Your task to perform on an android device: turn on notifications settings in the gmail app Image 0: 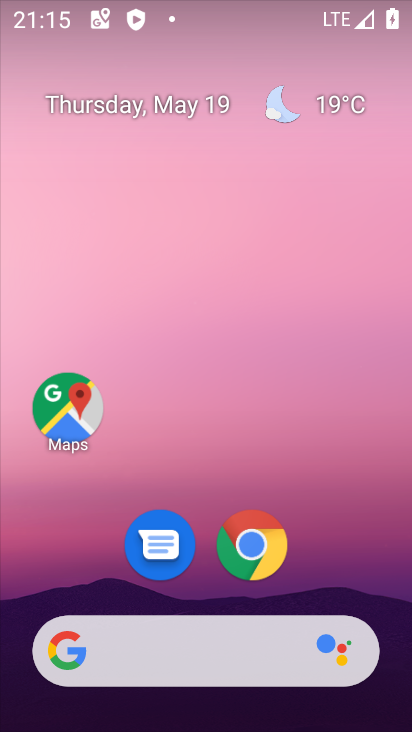
Step 0: drag from (360, 552) to (306, 88)
Your task to perform on an android device: turn on notifications settings in the gmail app Image 1: 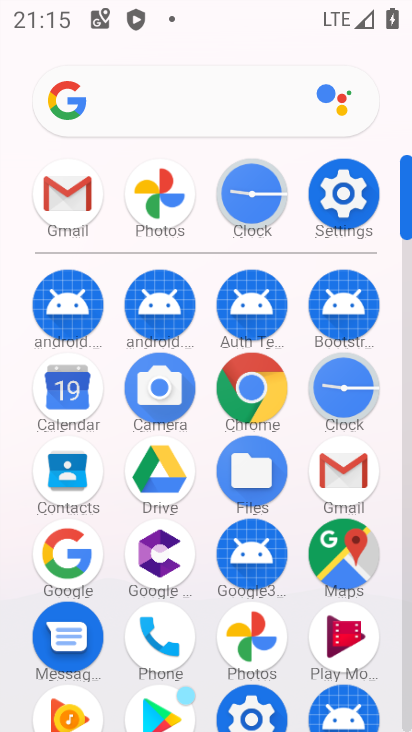
Step 1: click (76, 217)
Your task to perform on an android device: turn on notifications settings in the gmail app Image 2: 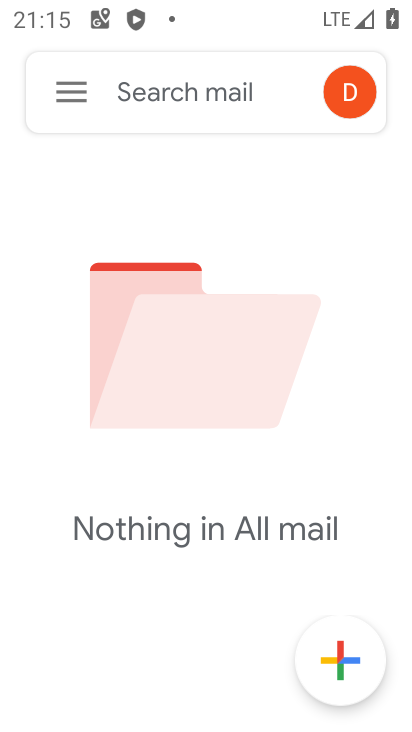
Step 2: click (98, 105)
Your task to perform on an android device: turn on notifications settings in the gmail app Image 3: 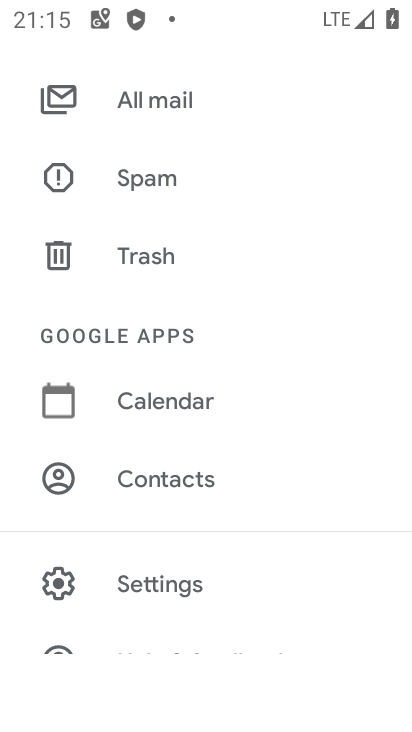
Step 3: drag from (137, 609) to (143, 406)
Your task to perform on an android device: turn on notifications settings in the gmail app Image 4: 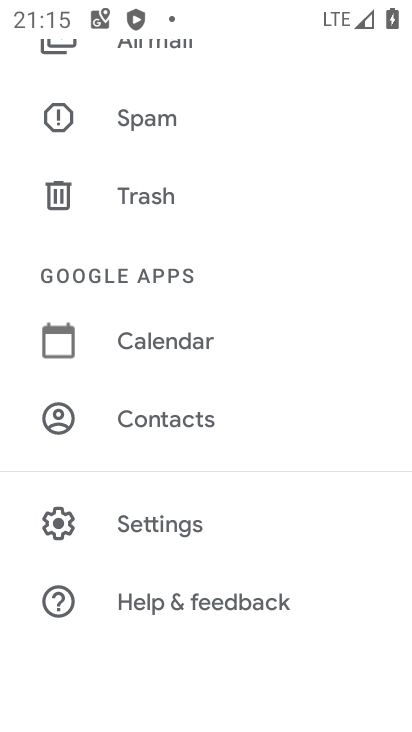
Step 4: click (146, 512)
Your task to perform on an android device: turn on notifications settings in the gmail app Image 5: 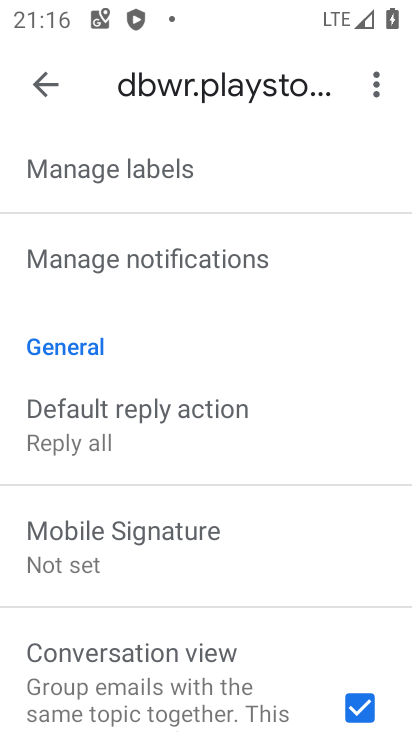
Step 5: press home button
Your task to perform on an android device: turn on notifications settings in the gmail app Image 6: 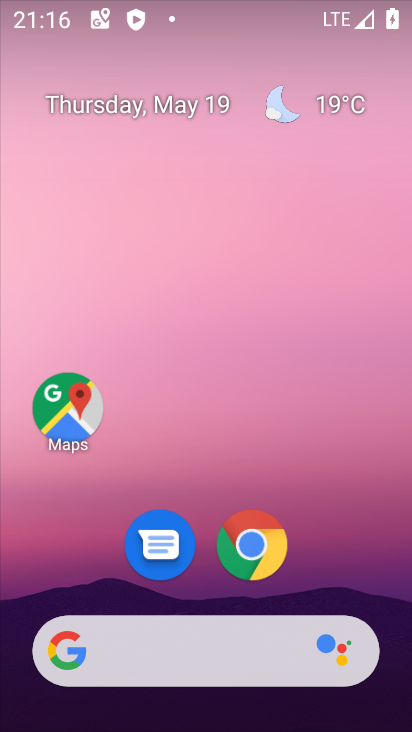
Step 6: drag from (374, 558) to (367, 174)
Your task to perform on an android device: turn on notifications settings in the gmail app Image 7: 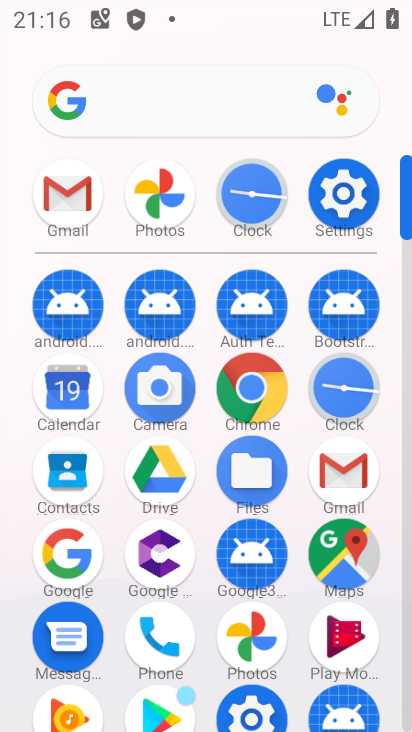
Step 7: click (56, 191)
Your task to perform on an android device: turn on notifications settings in the gmail app Image 8: 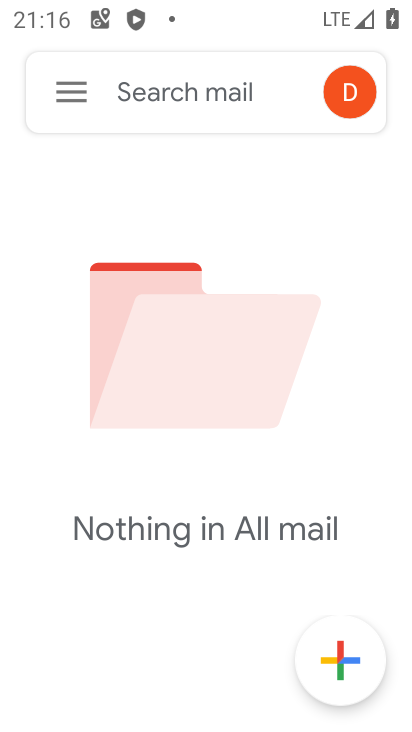
Step 8: click (57, 102)
Your task to perform on an android device: turn on notifications settings in the gmail app Image 9: 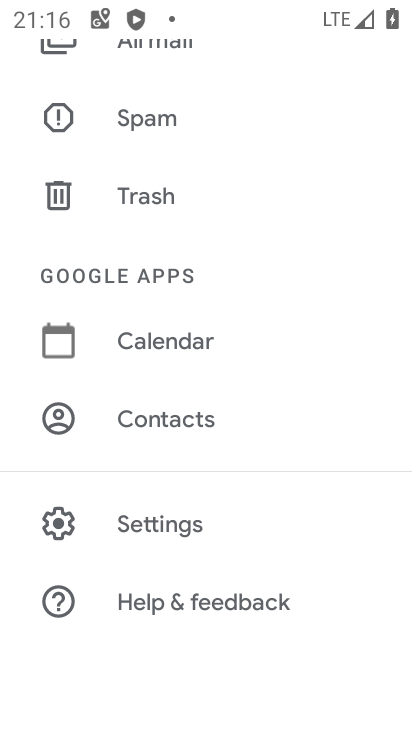
Step 9: click (119, 532)
Your task to perform on an android device: turn on notifications settings in the gmail app Image 10: 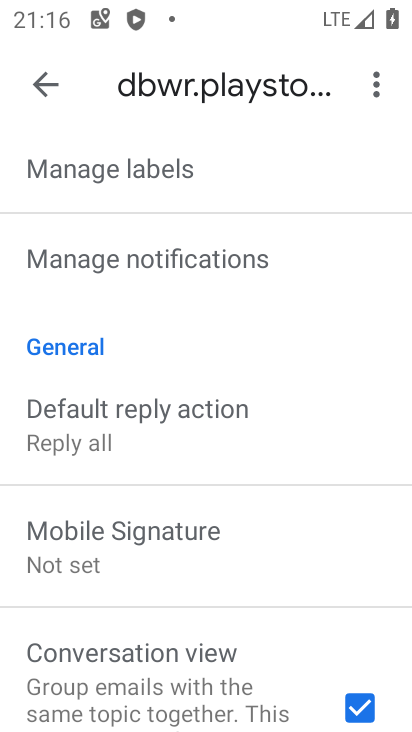
Step 10: click (285, 246)
Your task to perform on an android device: turn on notifications settings in the gmail app Image 11: 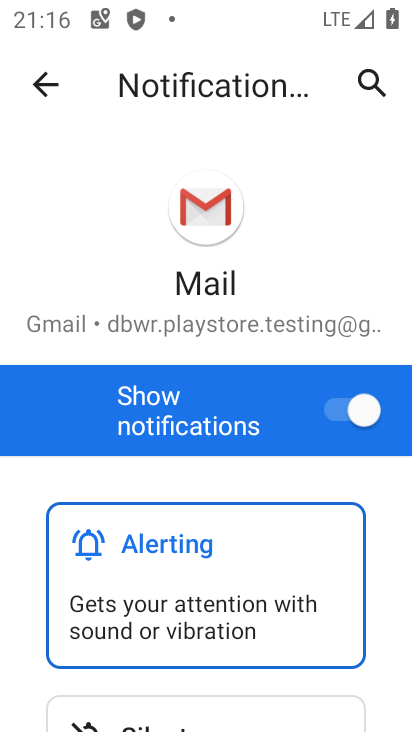
Step 11: click (251, 570)
Your task to perform on an android device: turn on notifications settings in the gmail app Image 12: 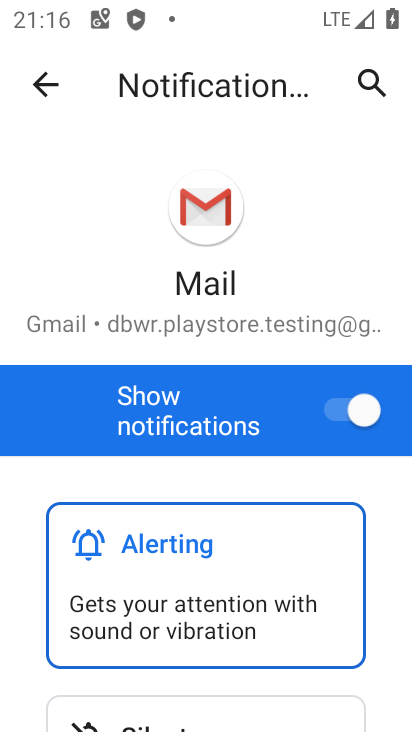
Step 12: task complete